Your task to perform on an android device: Open Android settings Image 0: 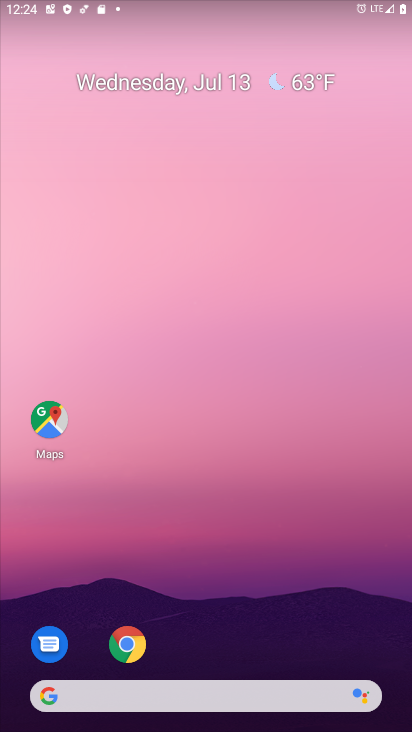
Step 0: drag from (226, 690) to (206, 203)
Your task to perform on an android device: Open Android settings Image 1: 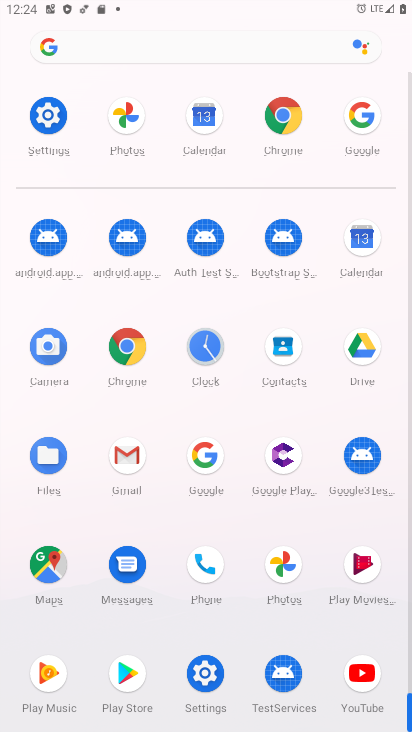
Step 1: click (49, 118)
Your task to perform on an android device: Open Android settings Image 2: 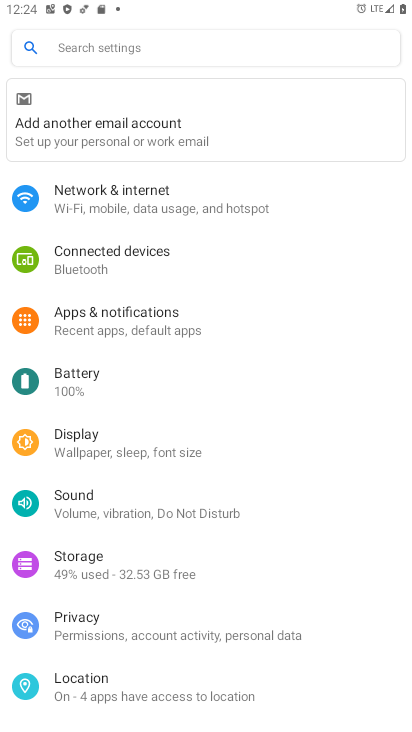
Step 2: task complete